Your task to perform on an android device: add a contact Image 0: 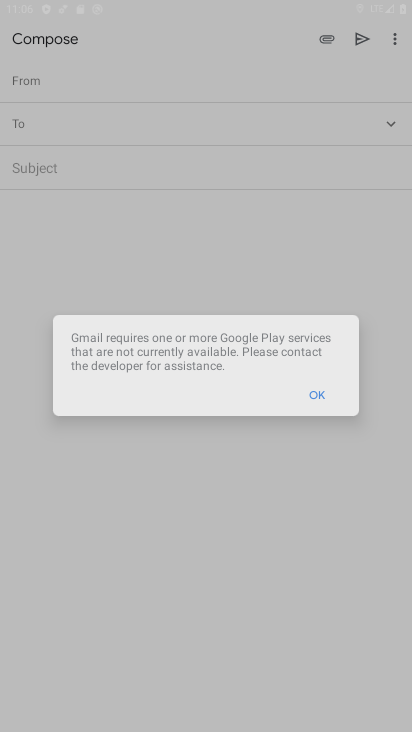
Step 0: drag from (364, 591) to (349, 119)
Your task to perform on an android device: add a contact Image 1: 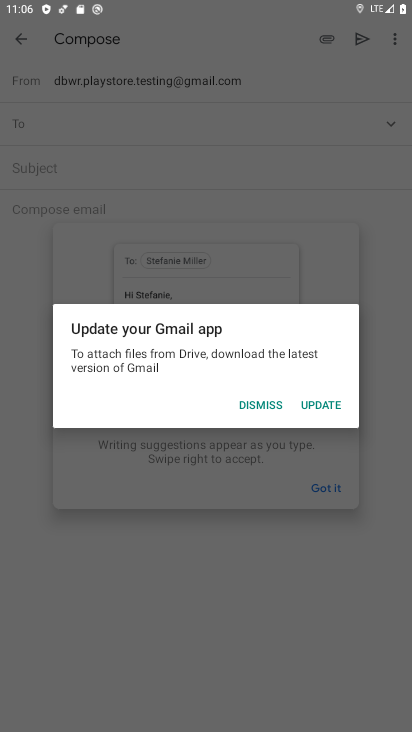
Step 1: press home button
Your task to perform on an android device: add a contact Image 2: 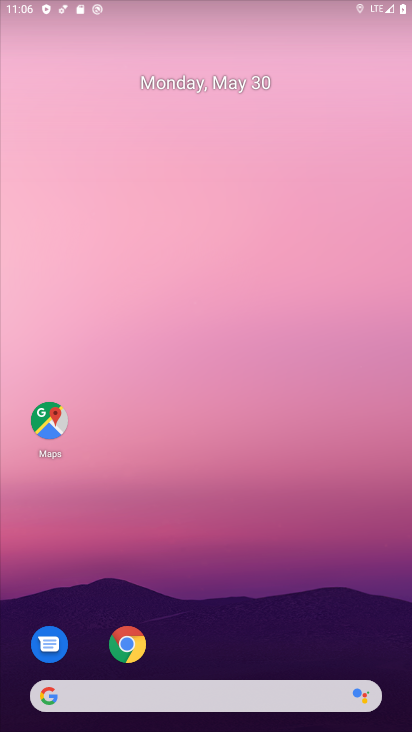
Step 2: drag from (245, 565) to (265, 143)
Your task to perform on an android device: add a contact Image 3: 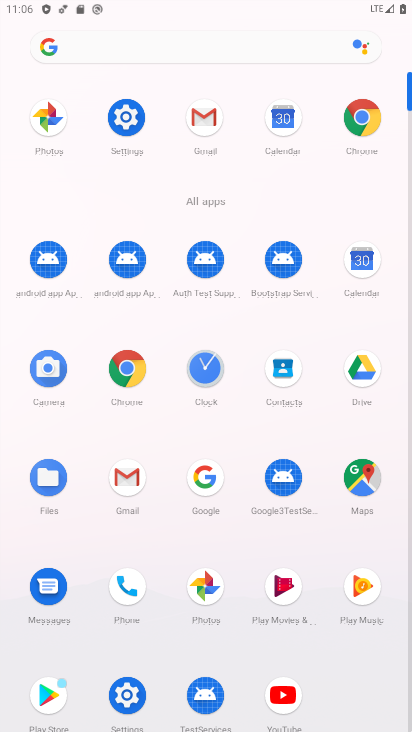
Step 3: click (286, 356)
Your task to perform on an android device: add a contact Image 4: 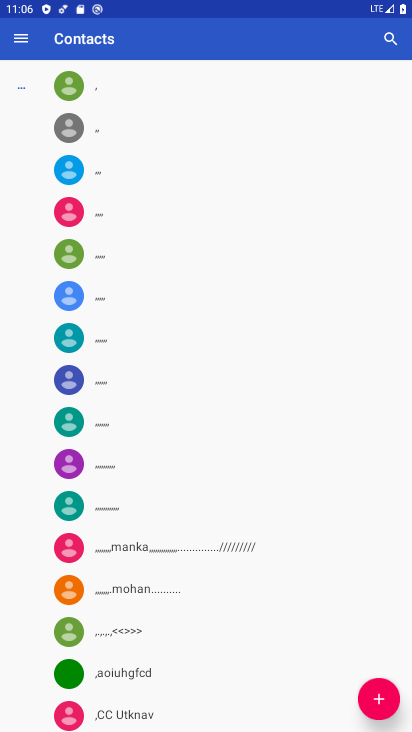
Step 4: click (382, 704)
Your task to perform on an android device: add a contact Image 5: 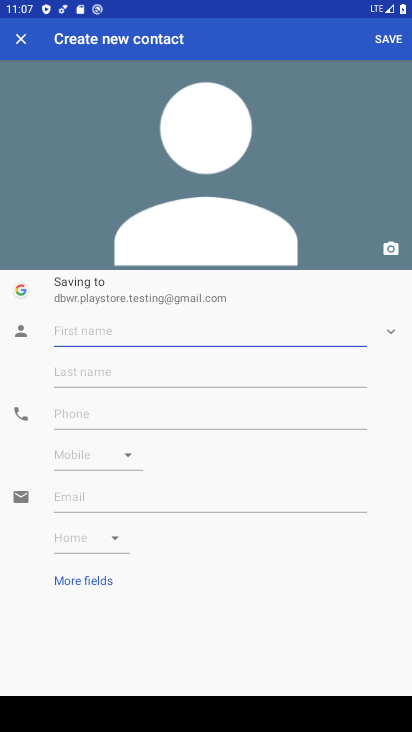
Step 5: type "ddddd"
Your task to perform on an android device: add a contact Image 6: 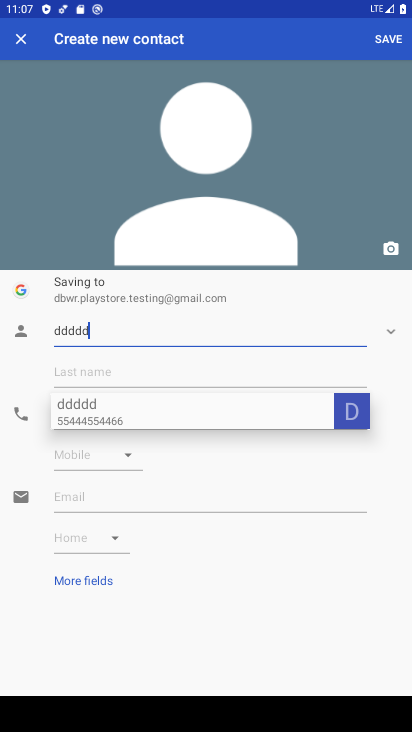
Step 6: click (20, 413)
Your task to perform on an android device: add a contact Image 7: 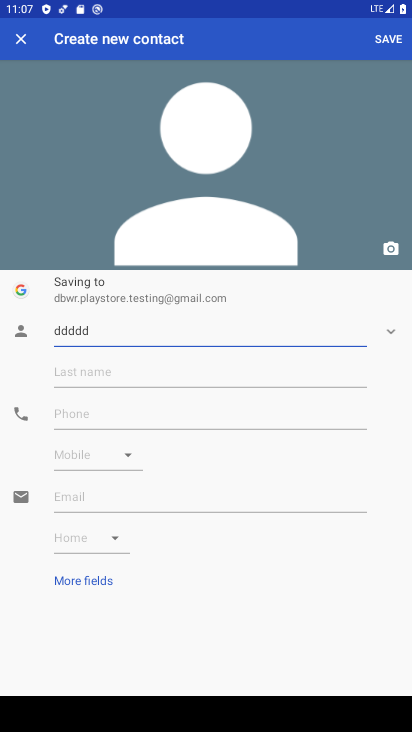
Step 7: click (111, 407)
Your task to perform on an android device: add a contact Image 8: 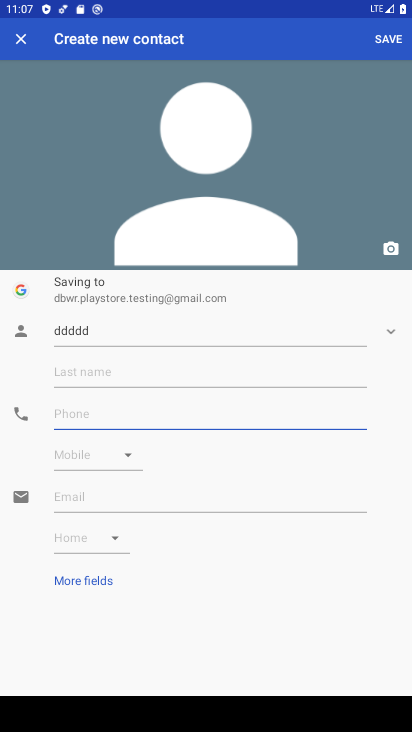
Step 8: type "45"
Your task to perform on an android device: add a contact Image 9: 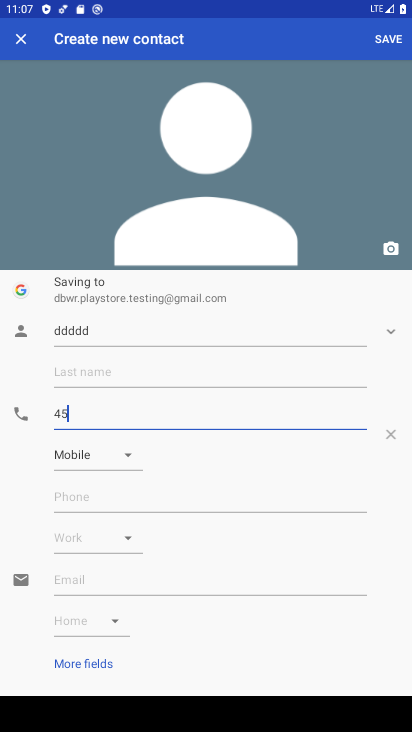
Step 9: click (398, 31)
Your task to perform on an android device: add a contact Image 10: 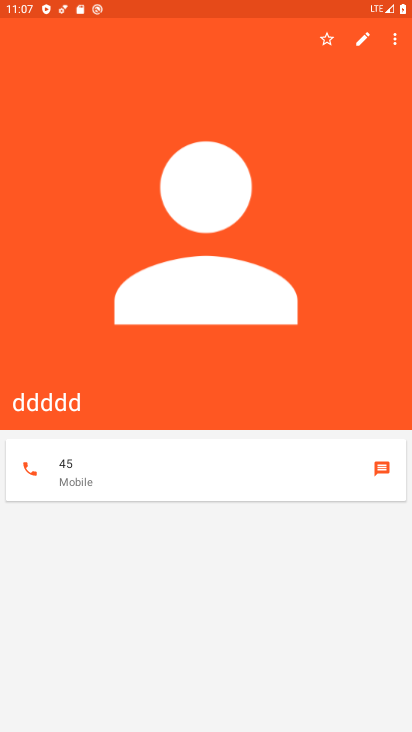
Step 10: task complete